Your task to perform on an android device: toggle show notifications on the lock screen Image 0: 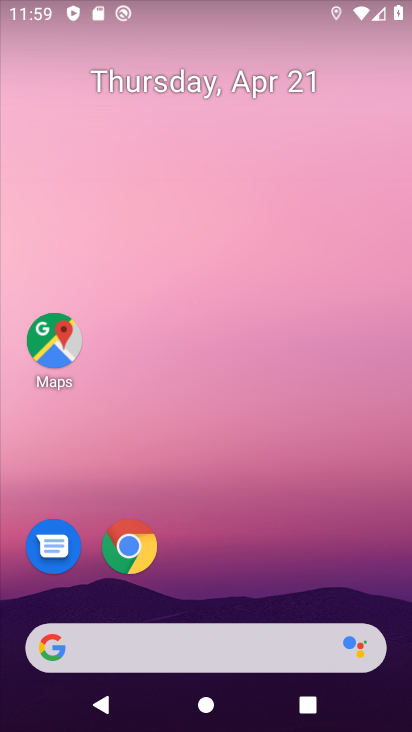
Step 0: drag from (213, 558) to (213, 24)
Your task to perform on an android device: toggle show notifications on the lock screen Image 1: 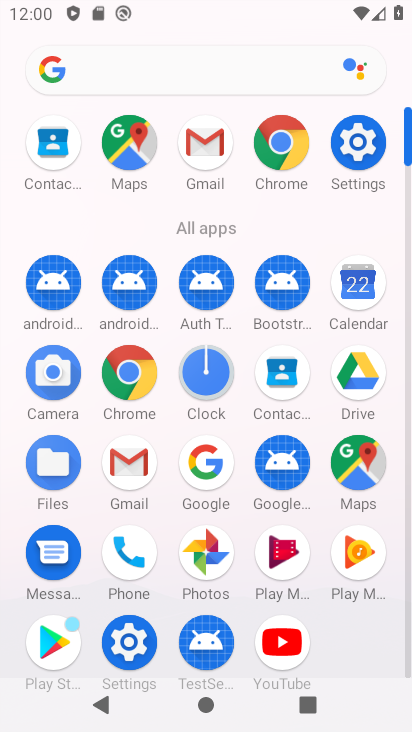
Step 1: click (364, 137)
Your task to perform on an android device: toggle show notifications on the lock screen Image 2: 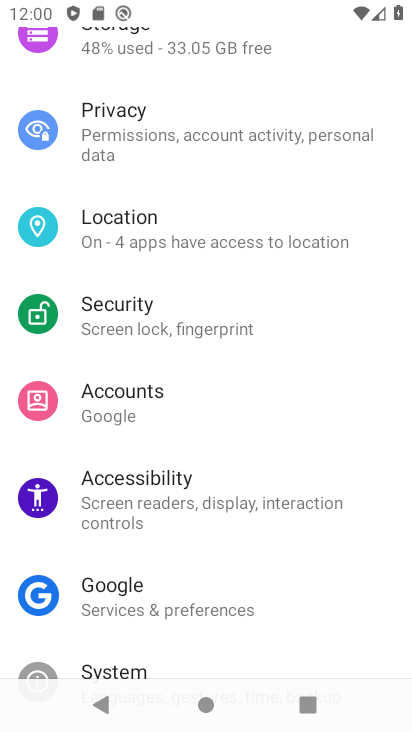
Step 2: drag from (204, 101) to (214, 507)
Your task to perform on an android device: toggle show notifications on the lock screen Image 3: 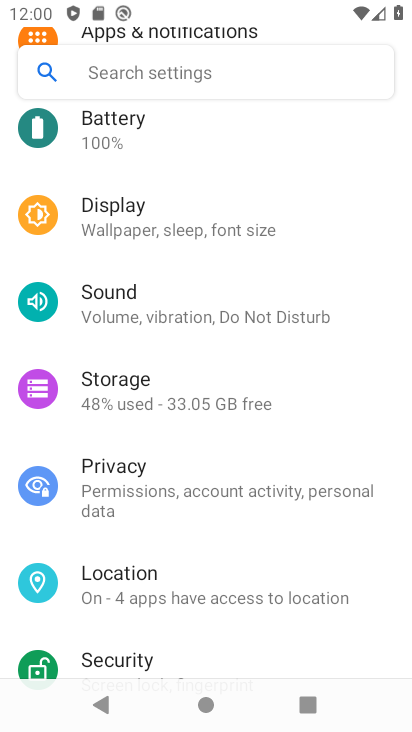
Step 3: drag from (208, 166) to (227, 494)
Your task to perform on an android device: toggle show notifications on the lock screen Image 4: 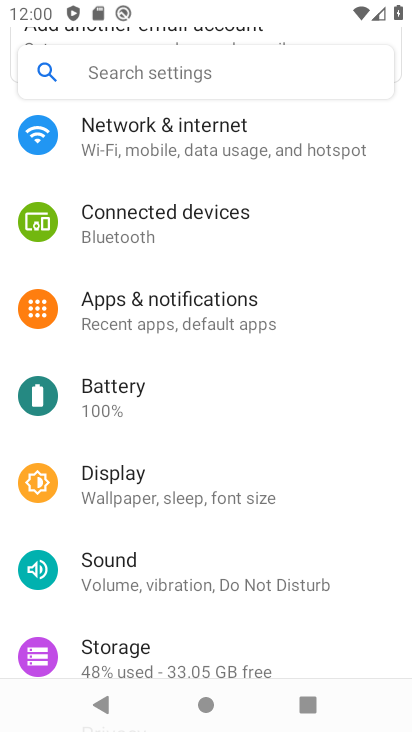
Step 4: click (214, 313)
Your task to perform on an android device: toggle show notifications on the lock screen Image 5: 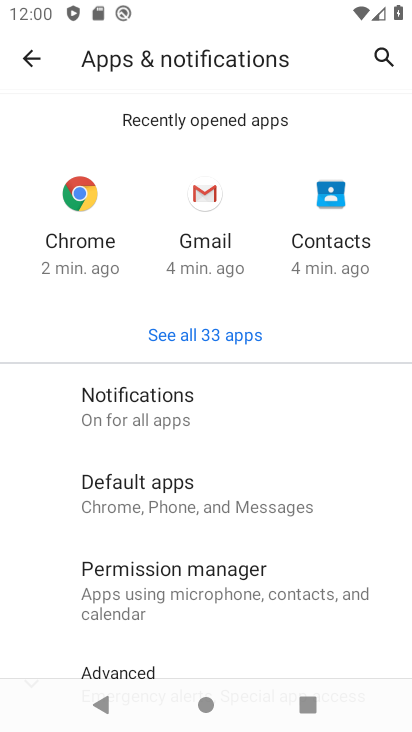
Step 5: click (158, 416)
Your task to perform on an android device: toggle show notifications on the lock screen Image 6: 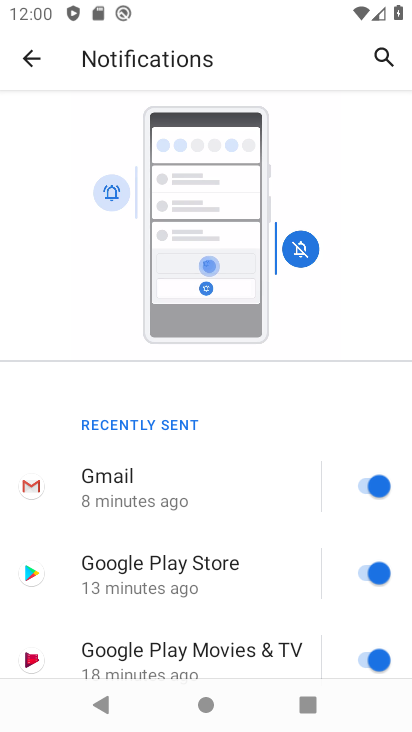
Step 6: drag from (226, 623) to (214, 231)
Your task to perform on an android device: toggle show notifications on the lock screen Image 7: 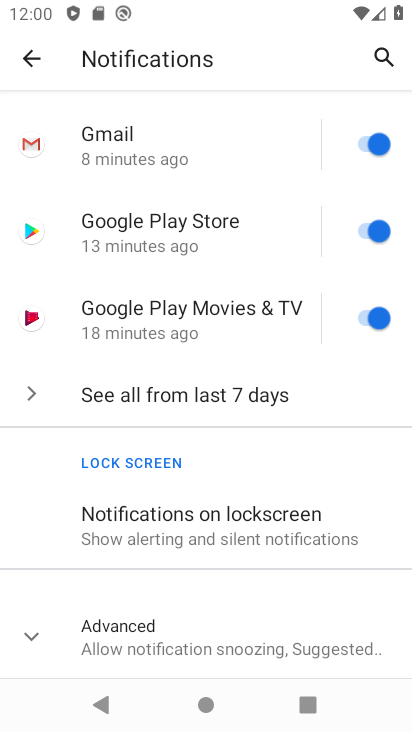
Step 7: click (227, 527)
Your task to perform on an android device: toggle show notifications on the lock screen Image 8: 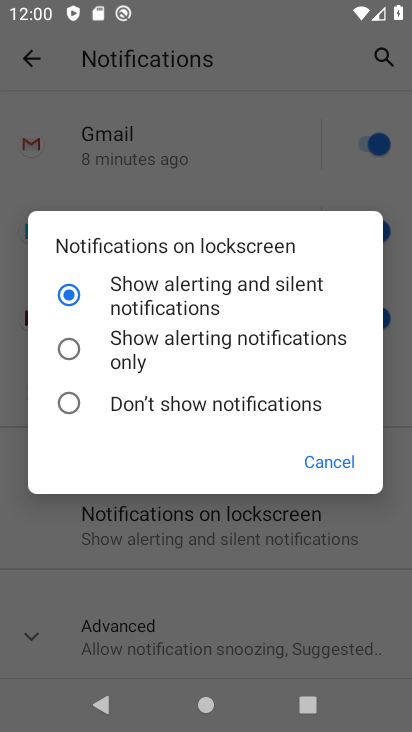
Step 8: click (64, 400)
Your task to perform on an android device: toggle show notifications on the lock screen Image 9: 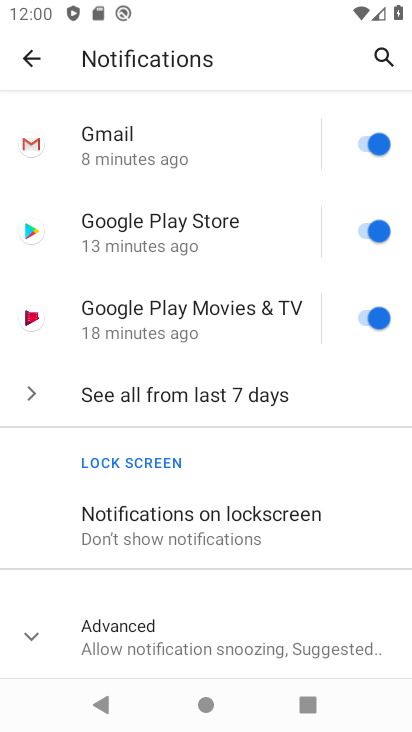
Step 9: task complete